Your task to perform on an android device: Open Google Maps and go to "Timeline" Image 0: 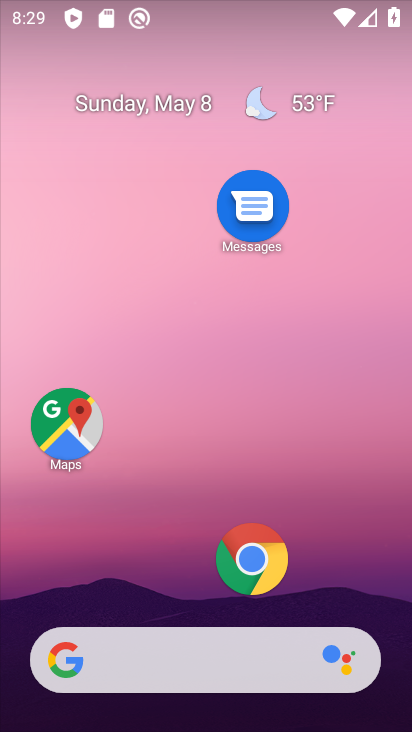
Step 0: click (62, 429)
Your task to perform on an android device: Open Google Maps and go to "Timeline" Image 1: 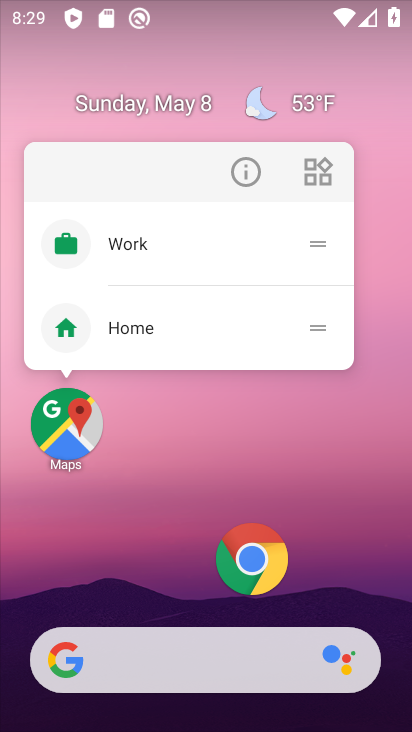
Step 1: click (68, 419)
Your task to perform on an android device: Open Google Maps and go to "Timeline" Image 2: 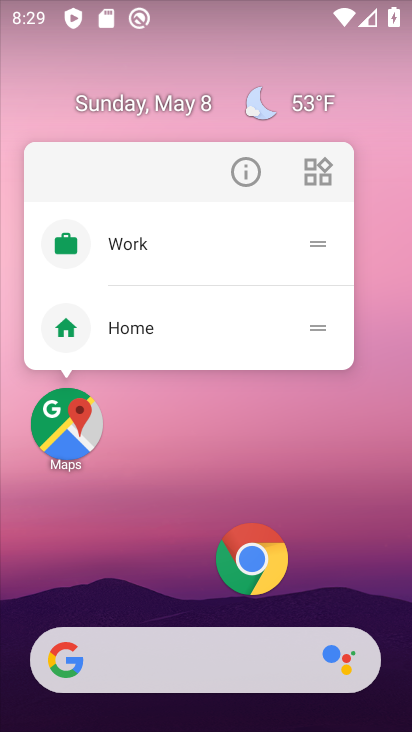
Step 2: click (69, 435)
Your task to perform on an android device: Open Google Maps and go to "Timeline" Image 3: 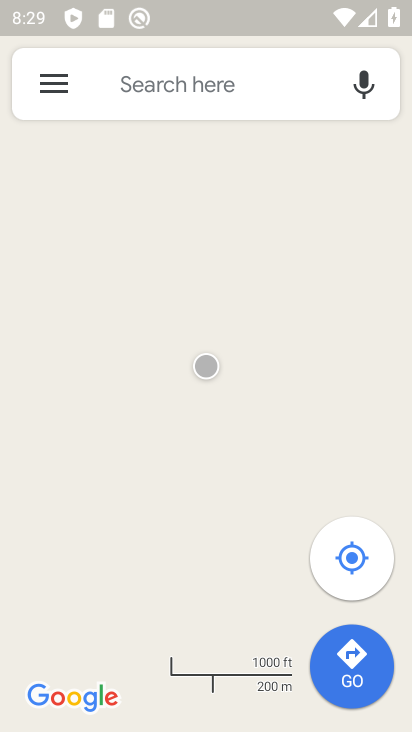
Step 3: click (54, 79)
Your task to perform on an android device: Open Google Maps and go to "Timeline" Image 4: 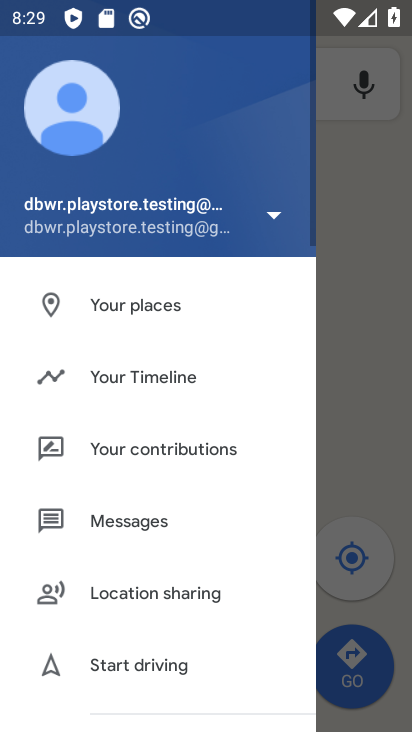
Step 4: click (161, 379)
Your task to perform on an android device: Open Google Maps and go to "Timeline" Image 5: 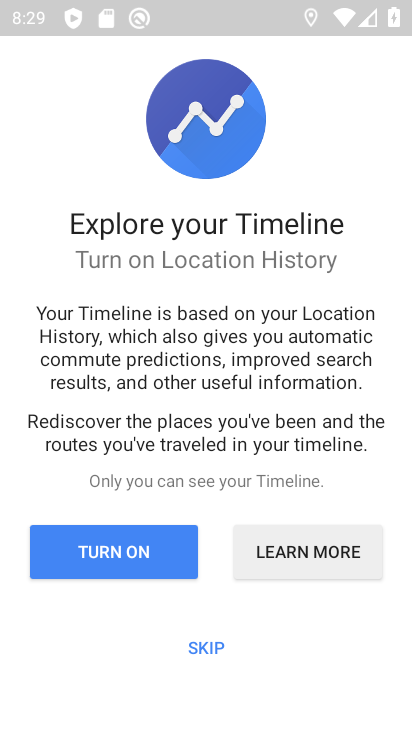
Step 5: click (140, 556)
Your task to perform on an android device: Open Google Maps and go to "Timeline" Image 6: 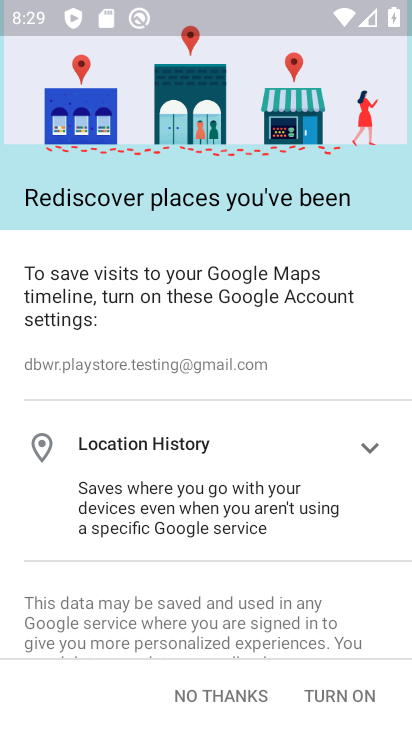
Step 6: click (236, 698)
Your task to perform on an android device: Open Google Maps and go to "Timeline" Image 7: 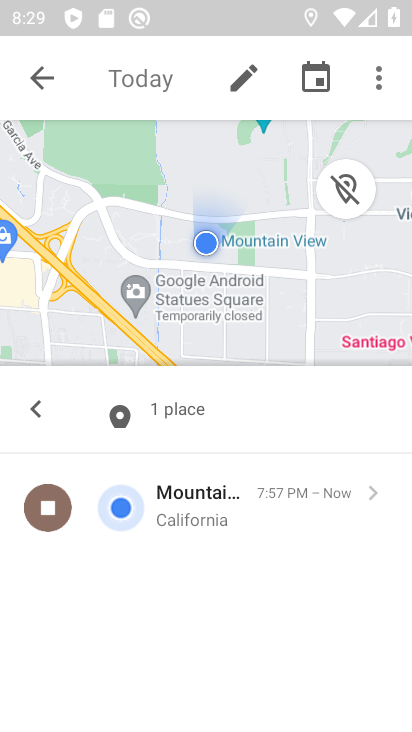
Step 7: task complete